Your task to perform on an android device: toggle priority inbox in the gmail app Image 0: 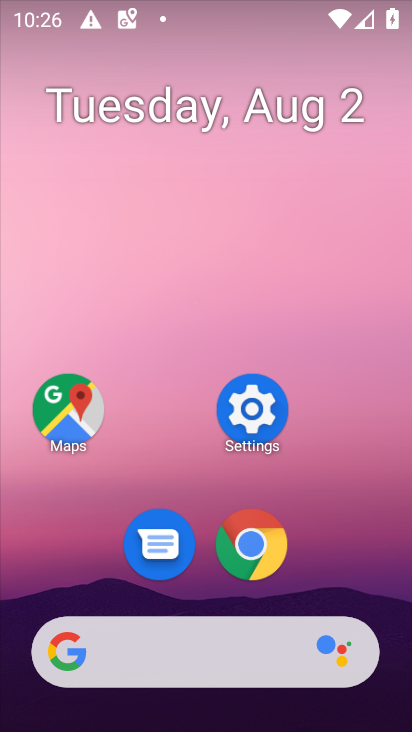
Step 0: press home button
Your task to perform on an android device: toggle priority inbox in the gmail app Image 1: 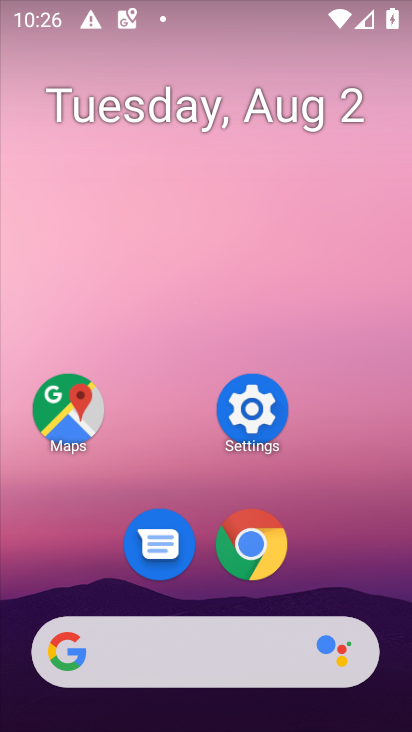
Step 1: drag from (206, 647) to (335, 99)
Your task to perform on an android device: toggle priority inbox in the gmail app Image 2: 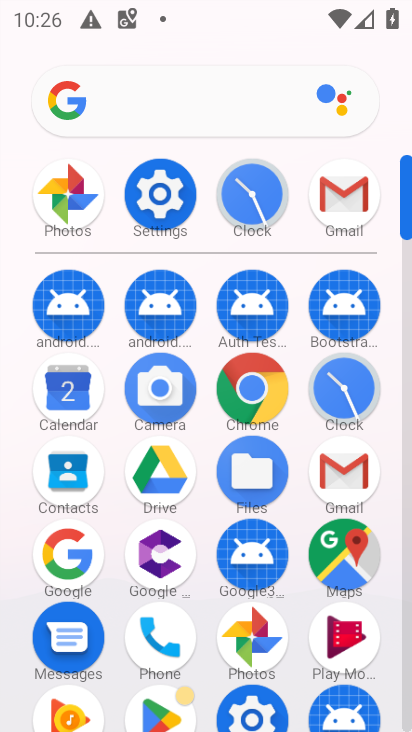
Step 2: click (348, 191)
Your task to perform on an android device: toggle priority inbox in the gmail app Image 3: 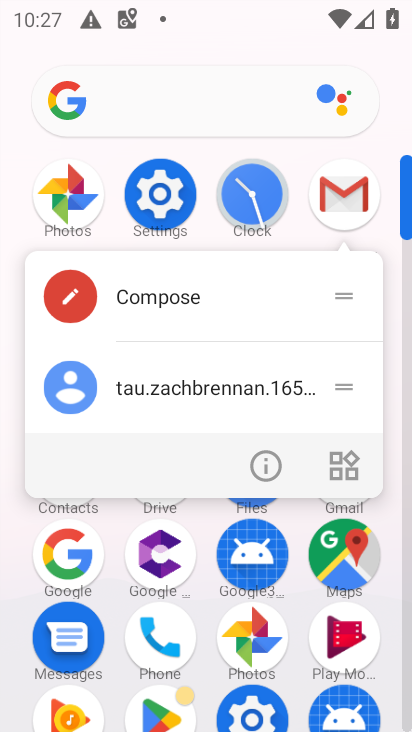
Step 3: click (348, 196)
Your task to perform on an android device: toggle priority inbox in the gmail app Image 4: 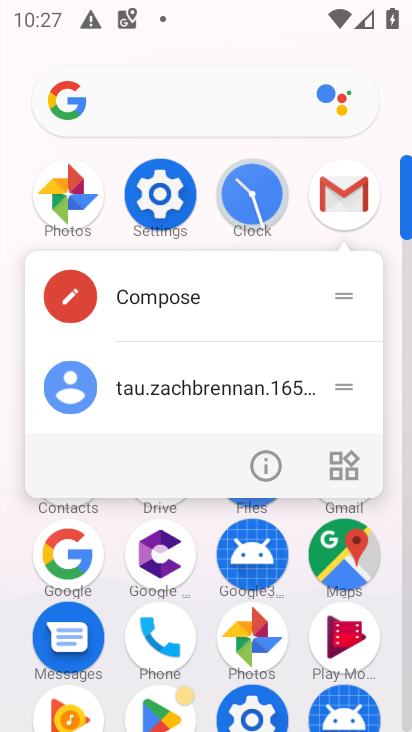
Step 4: click (345, 200)
Your task to perform on an android device: toggle priority inbox in the gmail app Image 5: 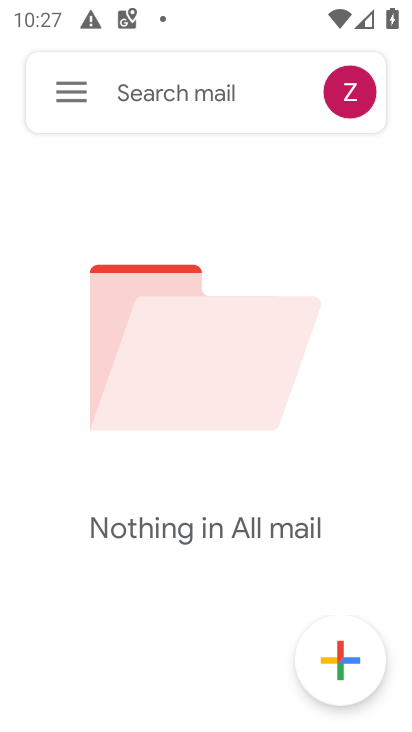
Step 5: click (73, 95)
Your task to perform on an android device: toggle priority inbox in the gmail app Image 6: 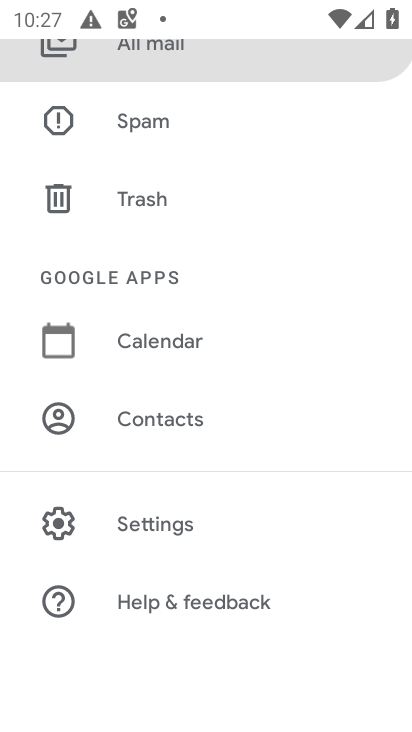
Step 6: click (181, 521)
Your task to perform on an android device: toggle priority inbox in the gmail app Image 7: 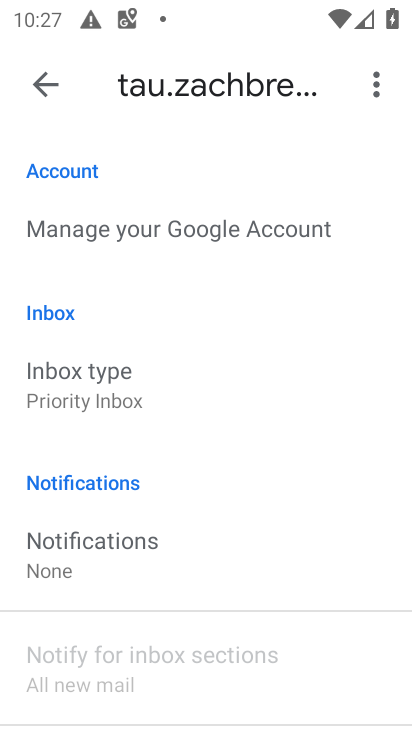
Step 7: task complete